Your task to perform on an android device: Go to wifi settings Image 0: 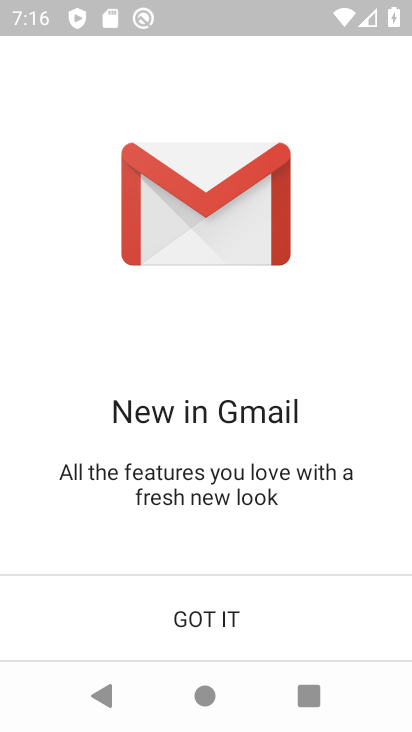
Step 0: press home button
Your task to perform on an android device: Go to wifi settings Image 1: 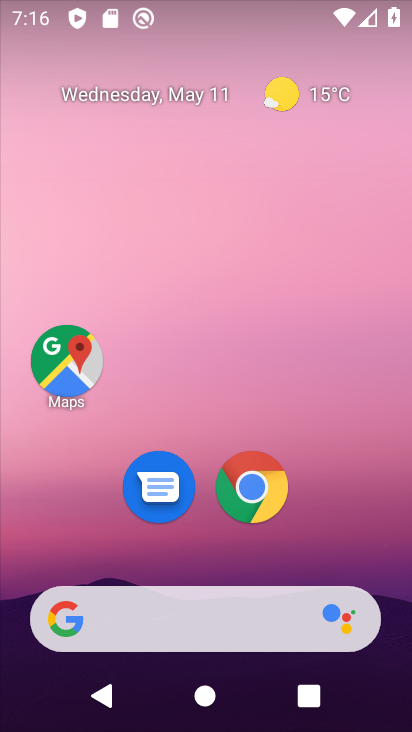
Step 1: drag from (290, 608) to (236, 172)
Your task to perform on an android device: Go to wifi settings Image 2: 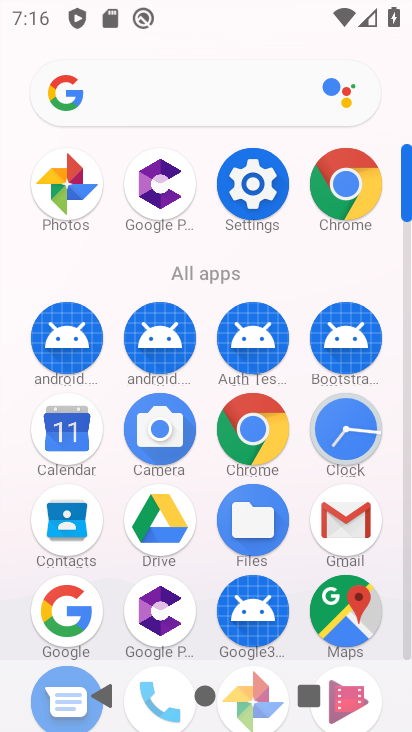
Step 2: click (262, 187)
Your task to perform on an android device: Go to wifi settings Image 3: 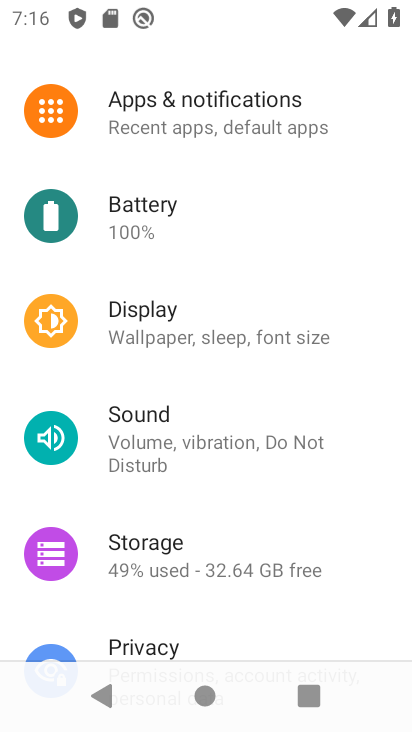
Step 3: drag from (162, 159) to (230, 502)
Your task to perform on an android device: Go to wifi settings Image 4: 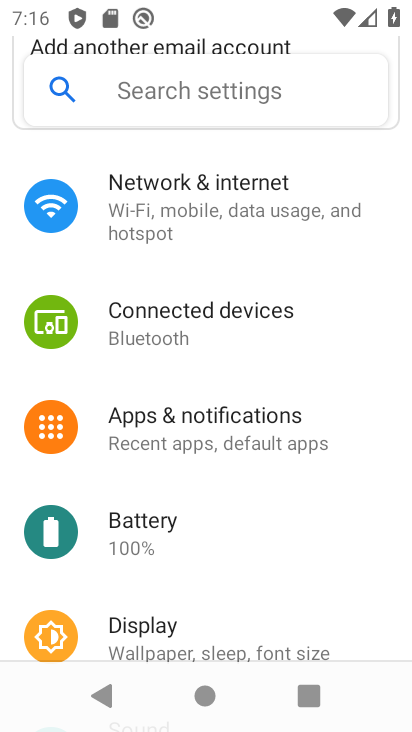
Step 4: click (184, 235)
Your task to perform on an android device: Go to wifi settings Image 5: 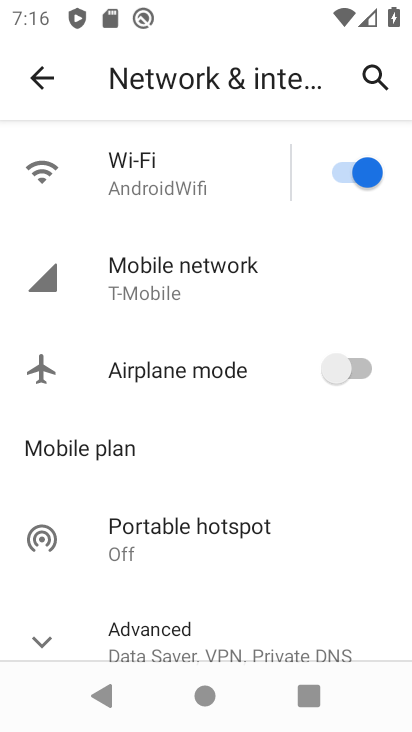
Step 5: click (152, 152)
Your task to perform on an android device: Go to wifi settings Image 6: 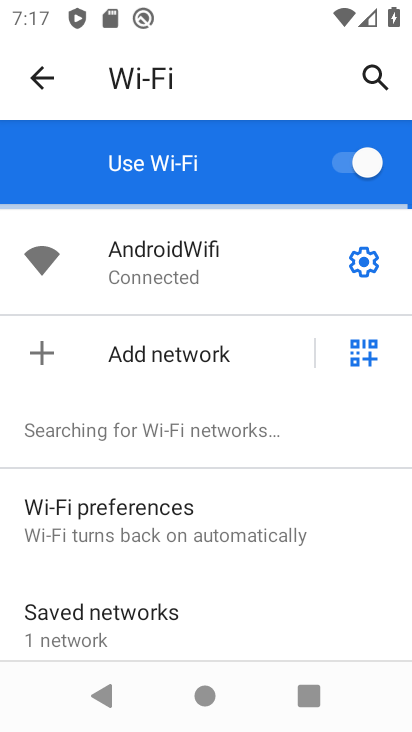
Step 6: task complete